Your task to perform on an android device: turn on sleep mode Image 0: 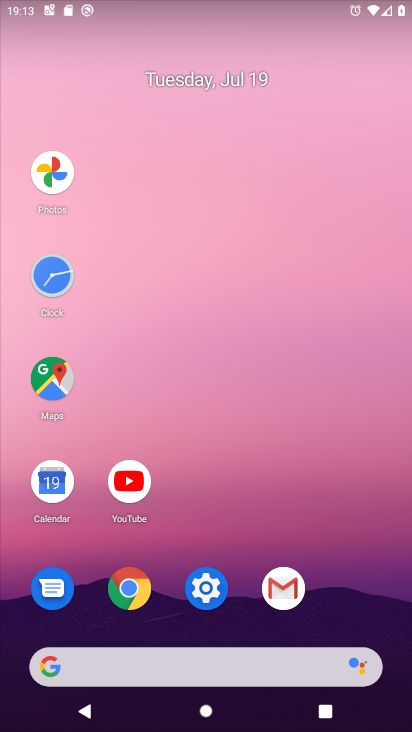
Step 0: click (209, 600)
Your task to perform on an android device: turn on sleep mode Image 1: 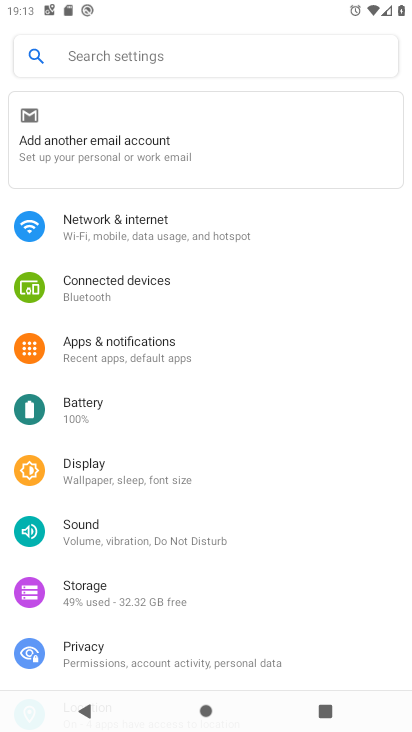
Step 1: click (78, 471)
Your task to perform on an android device: turn on sleep mode Image 2: 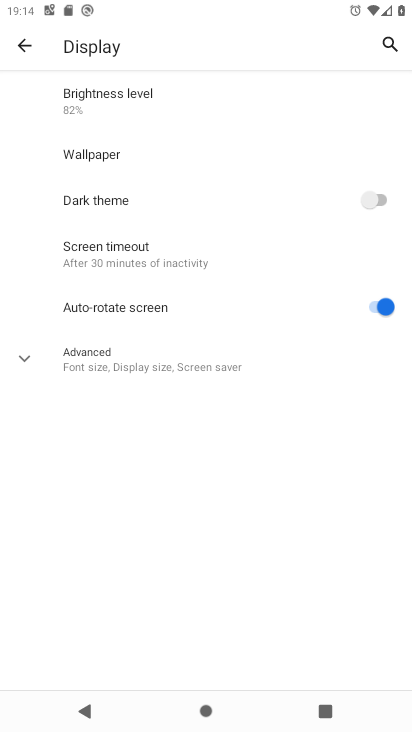
Step 2: task complete